Your task to perform on an android device: change the clock display to analog Image 0: 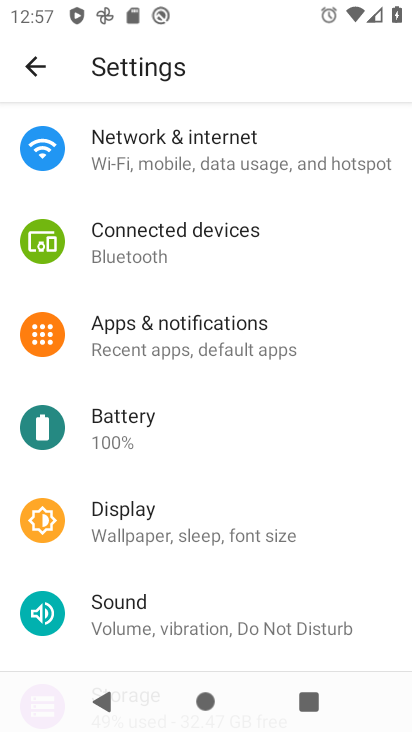
Step 0: press home button
Your task to perform on an android device: change the clock display to analog Image 1: 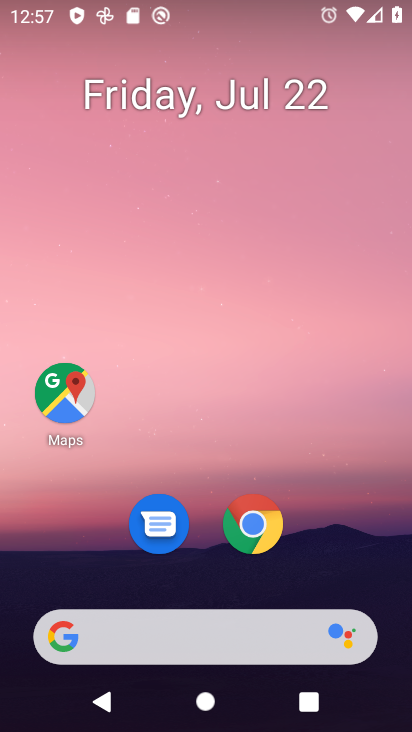
Step 1: drag from (215, 643) to (315, 161)
Your task to perform on an android device: change the clock display to analog Image 2: 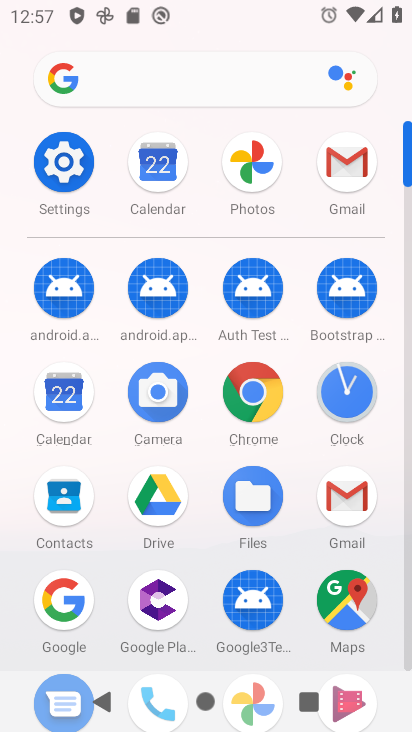
Step 2: click (345, 396)
Your task to perform on an android device: change the clock display to analog Image 3: 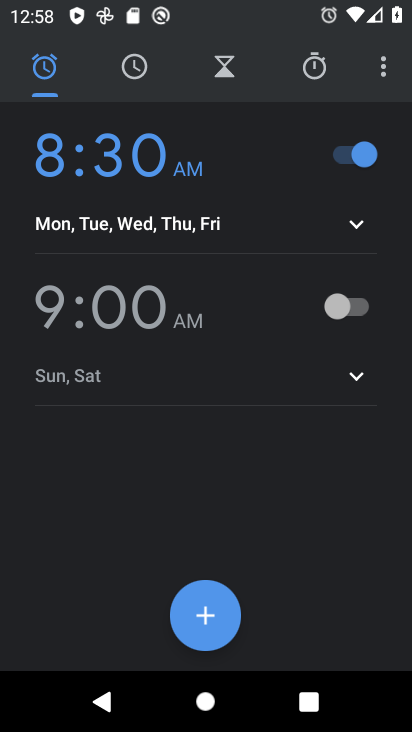
Step 3: click (384, 71)
Your task to perform on an android device: change the clock display to analog Image 4: 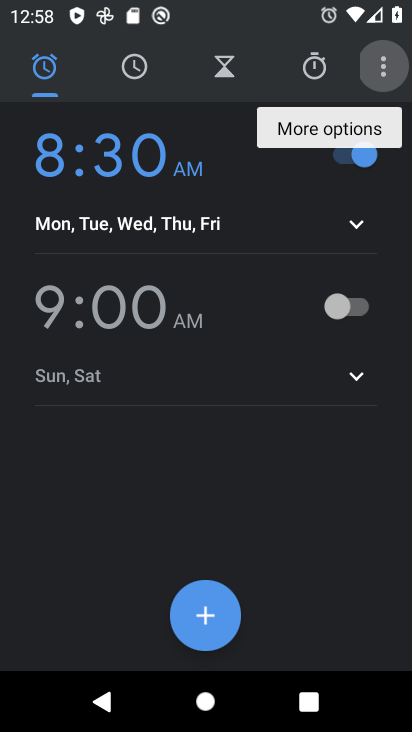
Step 4: click (384, 71)
Your task to perform on an android device: change the clock display to analog Image 5: 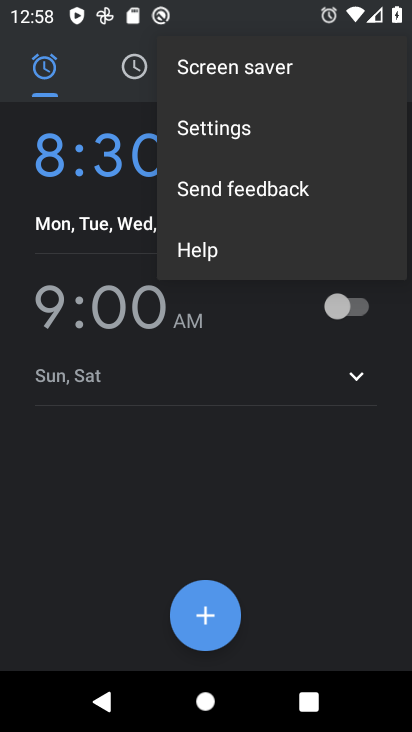
Step 5: click (248, 135)
Your task to perform on an android device: change the clock display to analog Image 6: 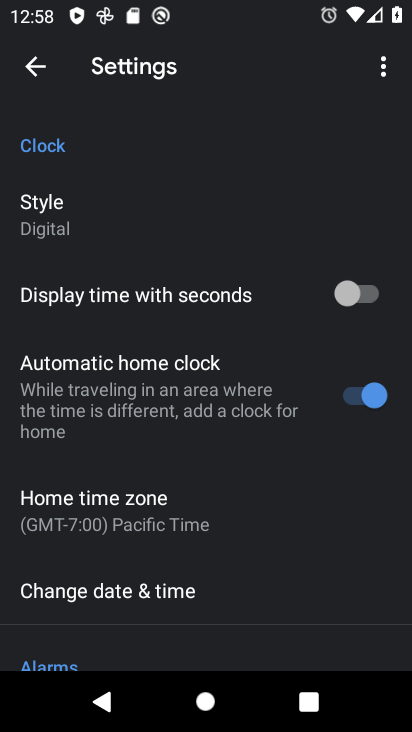
Step 6: click (54, 234)
Your task to perform on an android device: change the clock display to analog Image 7: 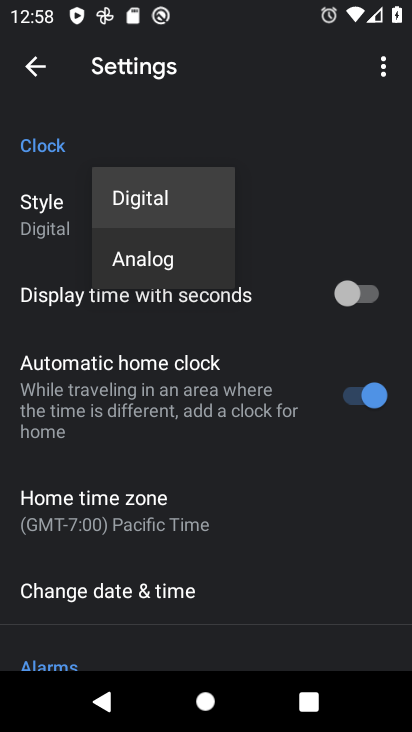
Step 7: click (141, 260)
Your task to perform on an android device: change the clock display to analog Image 8: 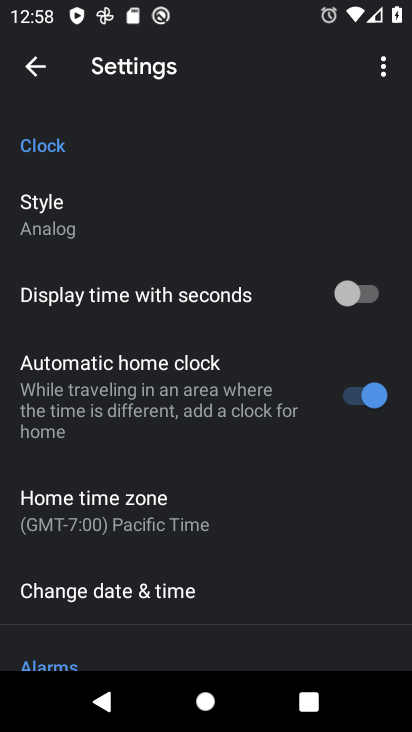
Step 8: task complete